Your task to perform on an android device: change notifications settings Image 0: 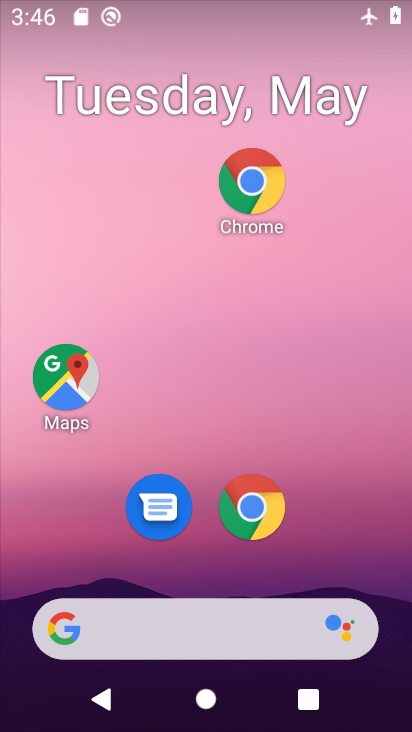
Step 0: drag from (350, 542) to (372, 115)
Your task to perform on an android device: change notifications settings Image 1: 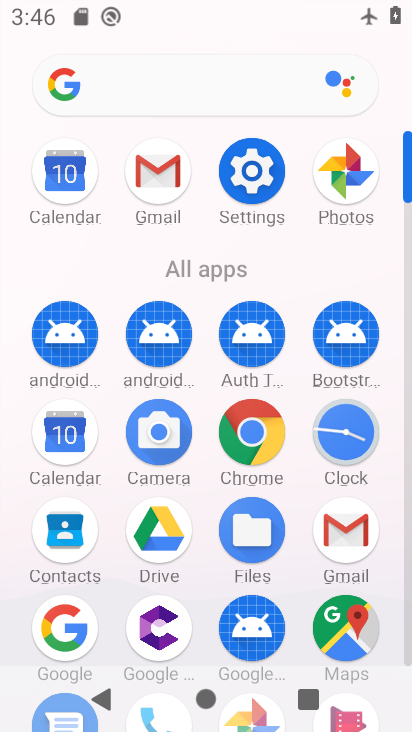
Step 1: click (263, 175)
Your task to perform on an android device: change notifications settings Image 2: 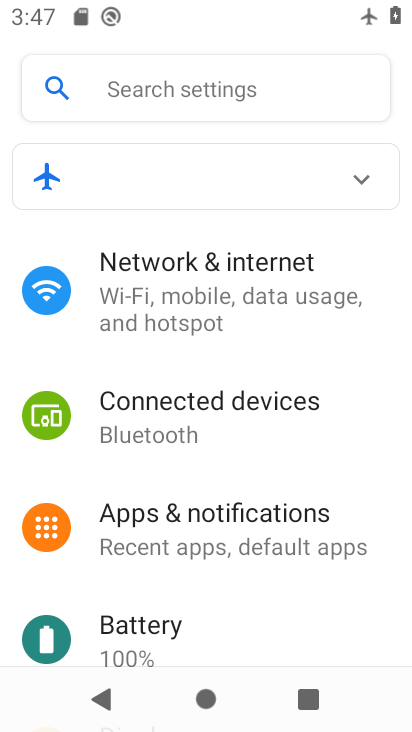
Step 2: click (282, 563)
Your task to perform on an android device: change notifications settings Image 3: 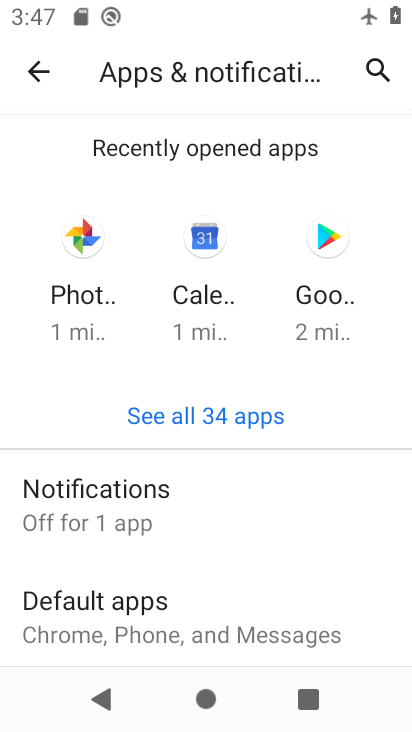
Step 3: click (112, 531)
Your task to perform on an android device: change notifications settings Image 4: 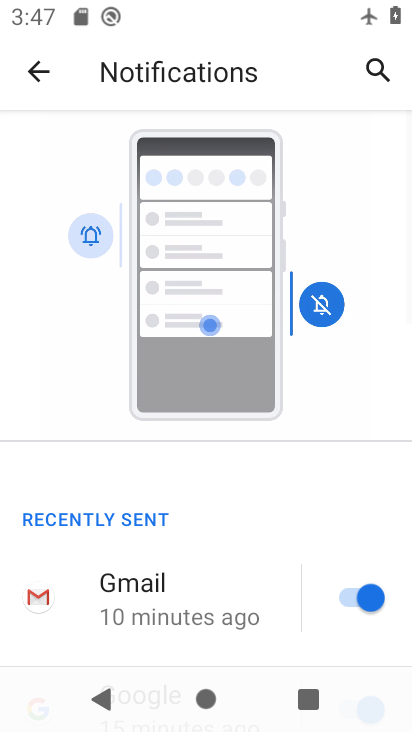
Step 4: drag from (156, 637) to (174, 286)
Your task to perform on an android device: change notifications settings Image 5: 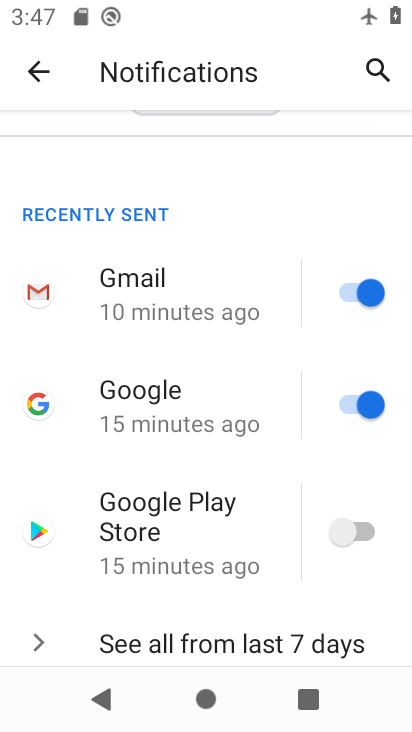
Step 5: drag from (178, 590) to (179, 270)
Your task to perform on an android device: change notifications settings Image 6: 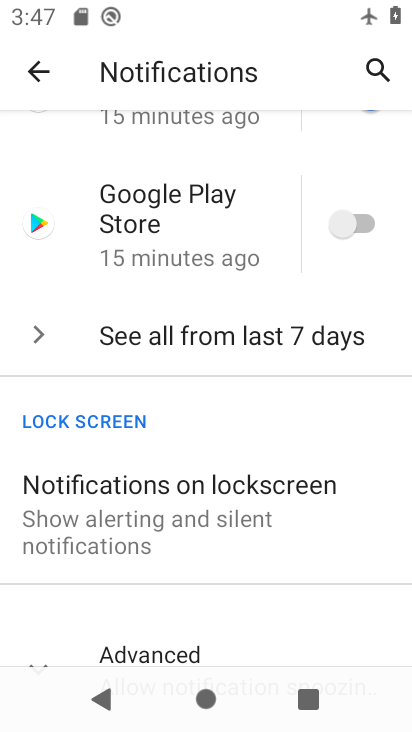
Step 6: drag from (249, 615) to (227, 340)
Your task to perform on an android device: change notifications settings Image 7: 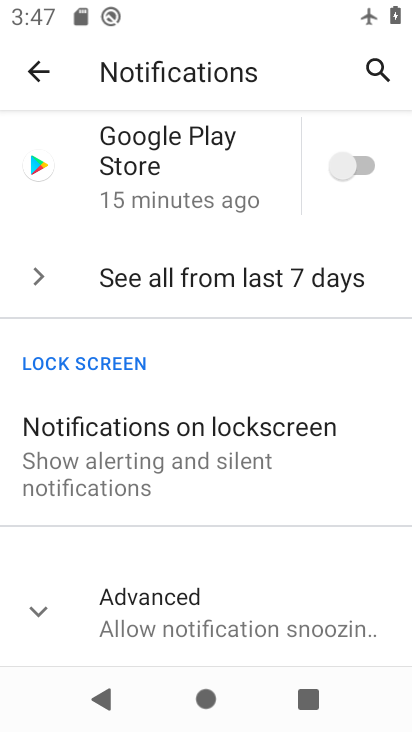
Step 7: drag from (243, 338) to (297, 607)
Your task to perform on an android device: change notifications settings Image 8: 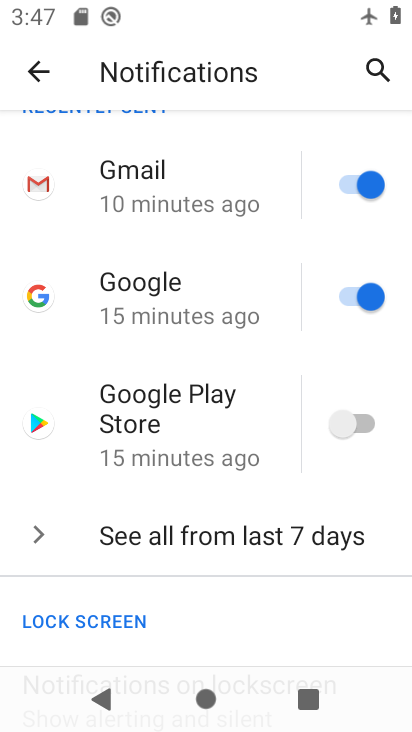
Step 8: click (360, 421)
Your task to perform on an android device: change notifications settings Image 9: 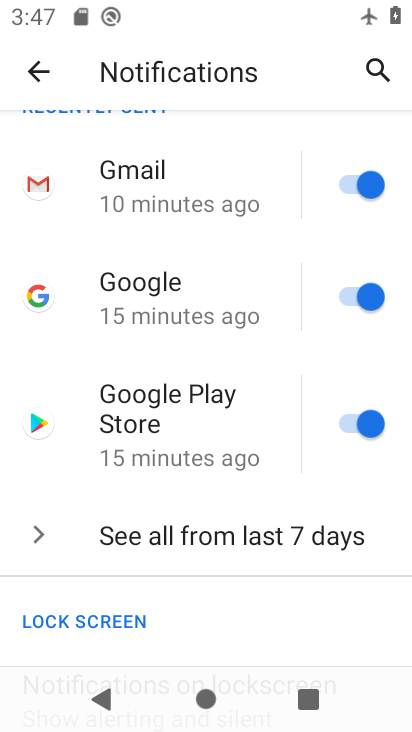
Step 9: task complete